Your task to perform on an android device: turn on priority inbox in the gmail app Image 0: 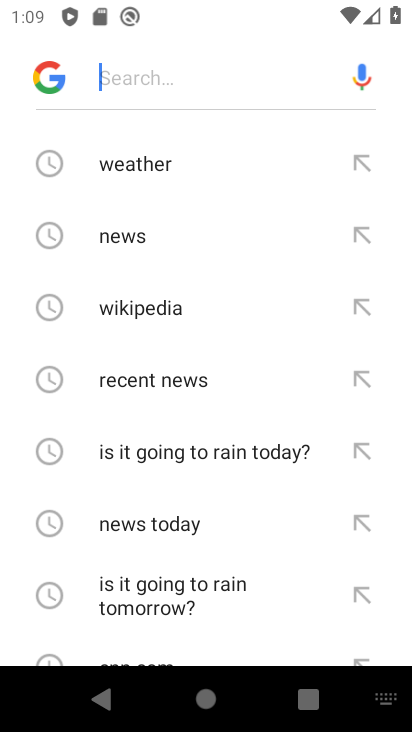
Step 0: press home button
Your task to perform on an android device: turn on priority inbox in the gmail app Image 1: 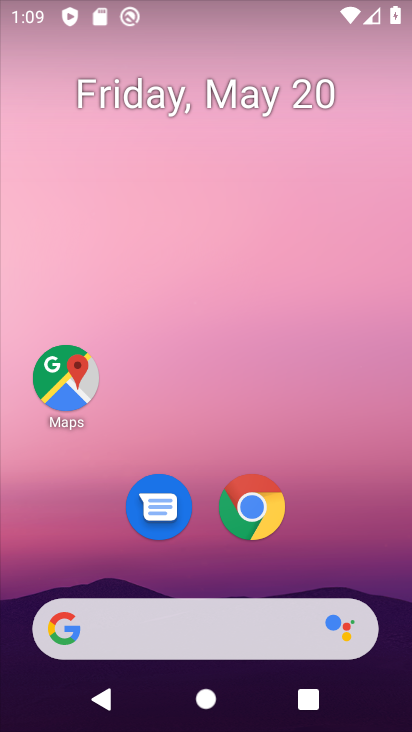
Step 1: drag from (241, 711) to (266, 244)
Your task to perform on an android device: turn on priority inbox in the gmail app Image 2: 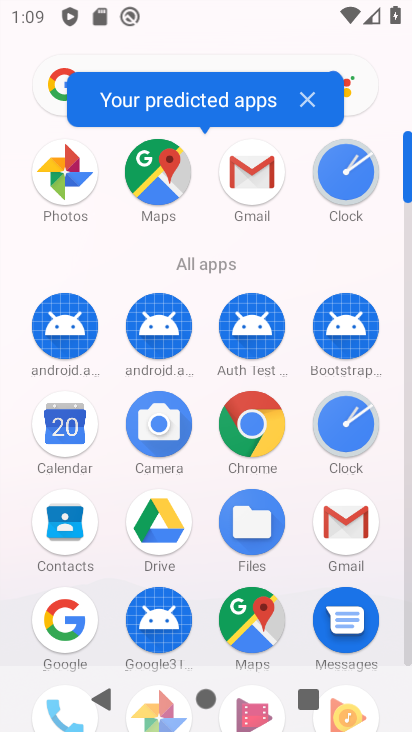
Step 2: click (342, 513)
Your task to perform on an android device: turn on priority inbox in the gmail app Image 3: 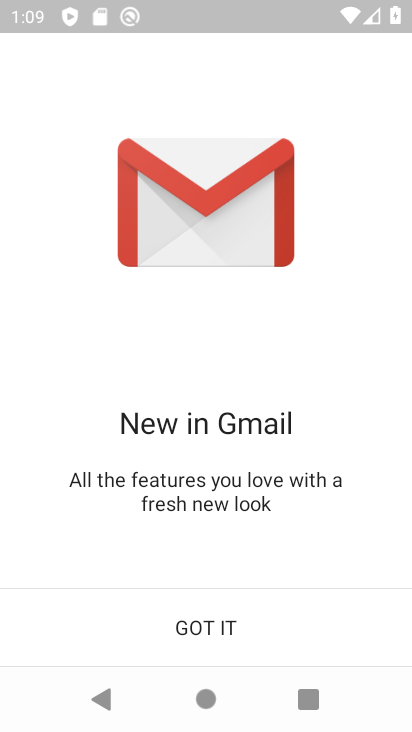
Step 3: click (191, 624)
Your task to perform on an android device: turn on priority inbox in the gmail app Image 4: 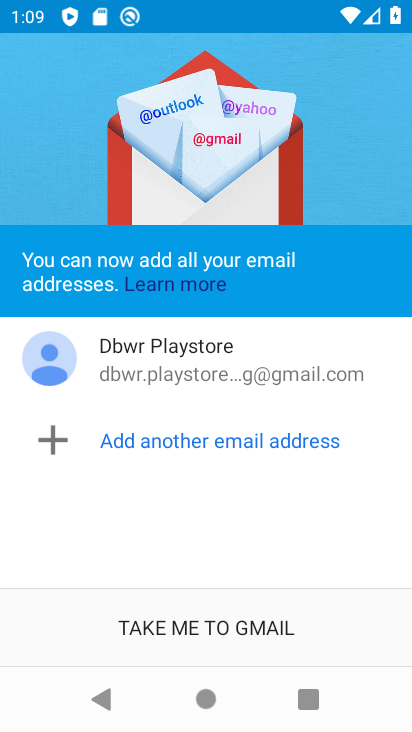
Step 4: click (221, 630)
Your task to perform on an android device: turn on priority inbox in the gmail app Image 5: 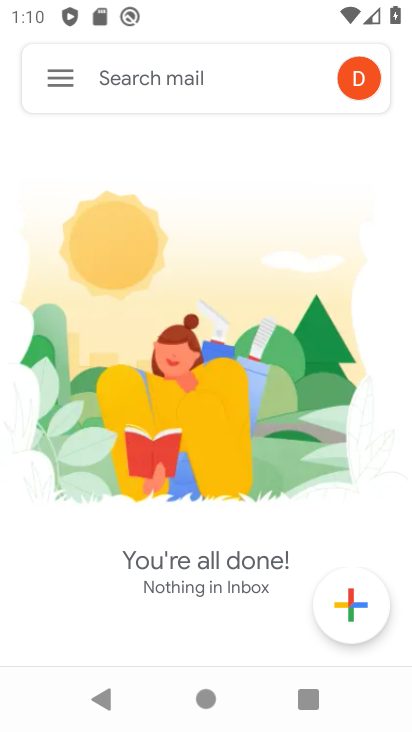
Step 5: click (50, 73)
Your task to perform on an android device: turn on priority inbox in the gmail app Image 6: 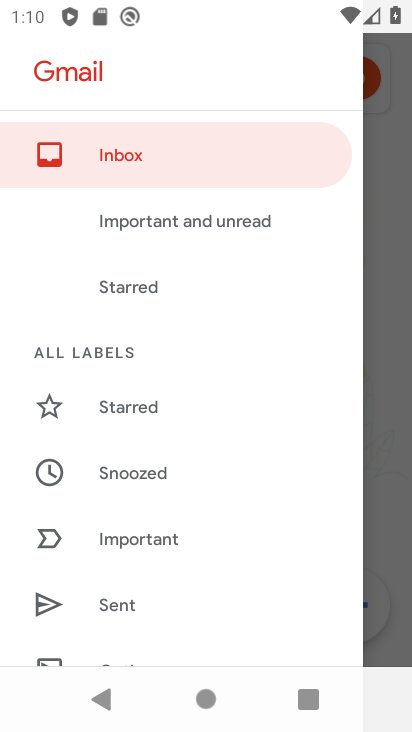
Step 6: drag from (111, 634) to (115, 144)
Your task to perform on an android device: turn on priority inbox in the gmail app Image 7: 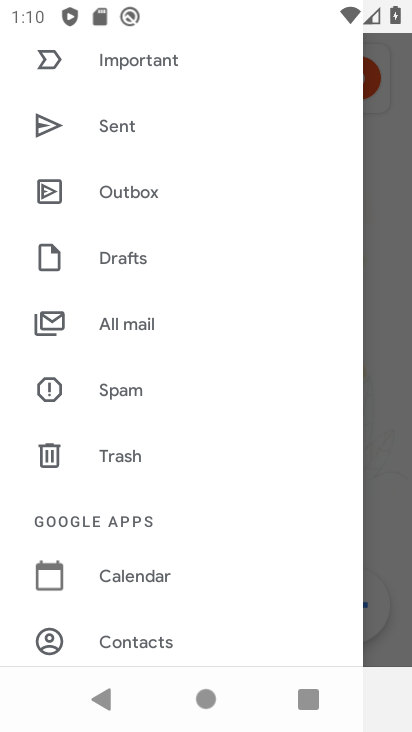
Step 7: drag from (132, 631) to (136, 220)
Your task to perform on an android device: turn on priority inbox in the gmail app Image 8: 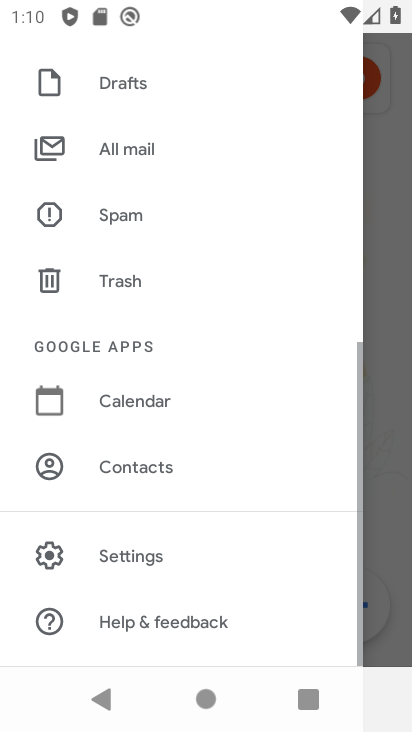
Step 8: click (132, 561)
Your task to perform on an android device: turn on priority inbox in the gmail app Image 9: 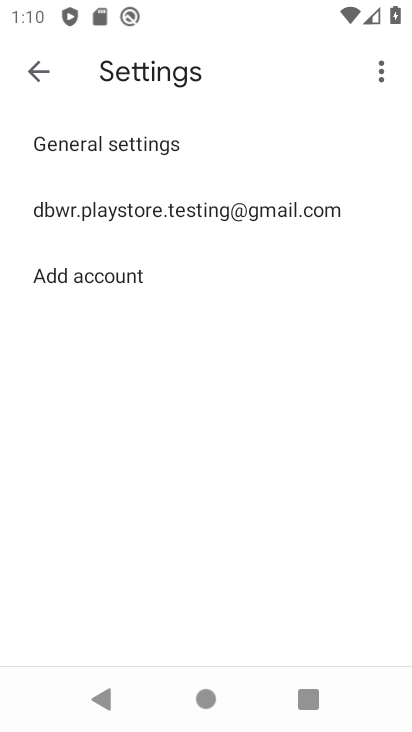
Step 9: click (155, 204)
Your task to perform on an android device: turn on priority inbox in the gmail app Image 10: 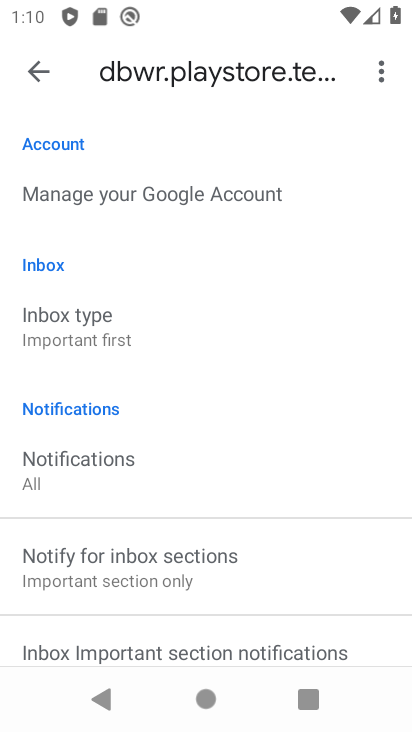
Step 10: click (83, 329)
Your task to perform on an android device: turn on priority inbox in the gmail app Image 11: 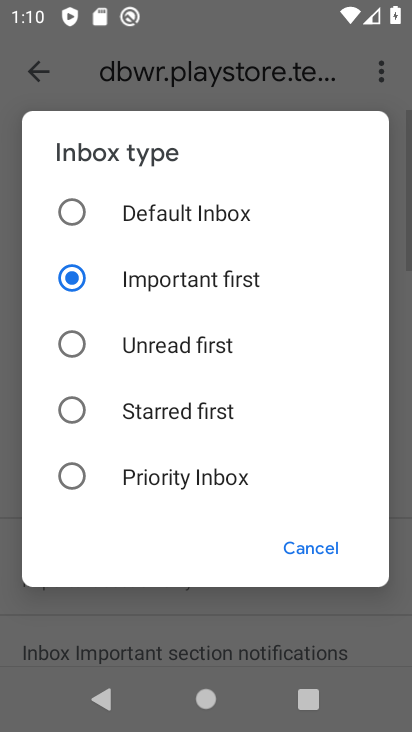
Step 11: click (76, 474)
Your task to perform on an android device: turn on priority inbox in the gmail app Image 12: 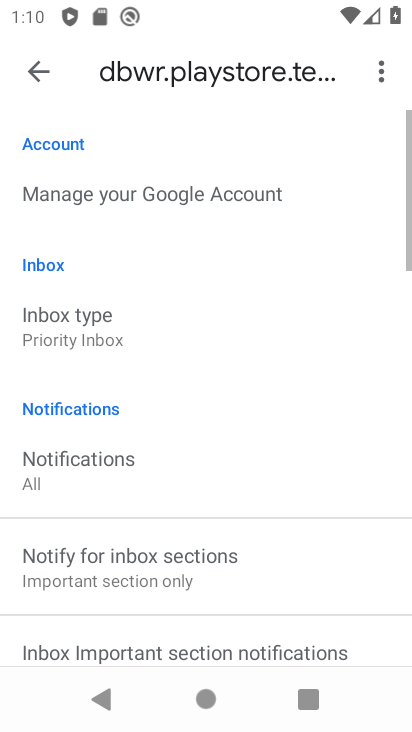
Step 12: task complete